Your task to perform on an android device: stop showing notifications on the lock screen Image 0: 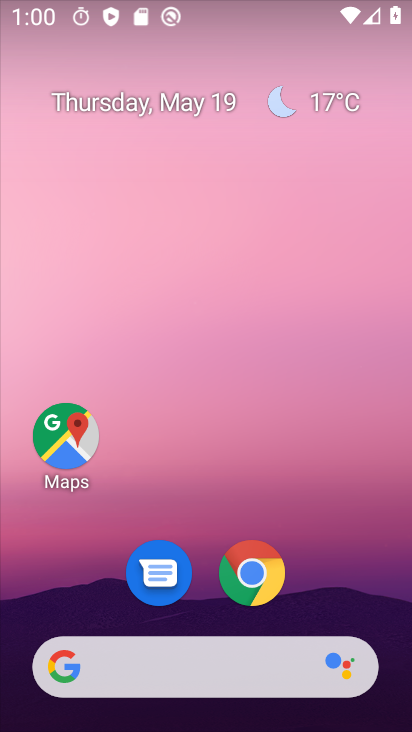
Step 0: drag from (183, 614) to (220, 127)
Your task to perform on an android device: stop showing notifications on the lock screen Image 1: 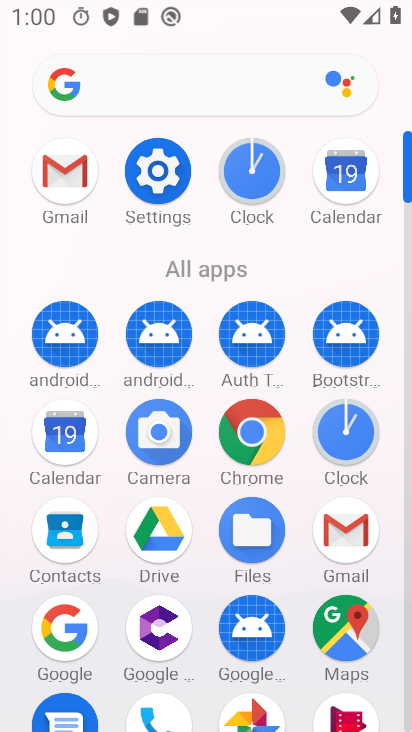
Step 1: click (158, 173)
Your task to perform on an android device: stop showing notifications on the lock screen Image 2: 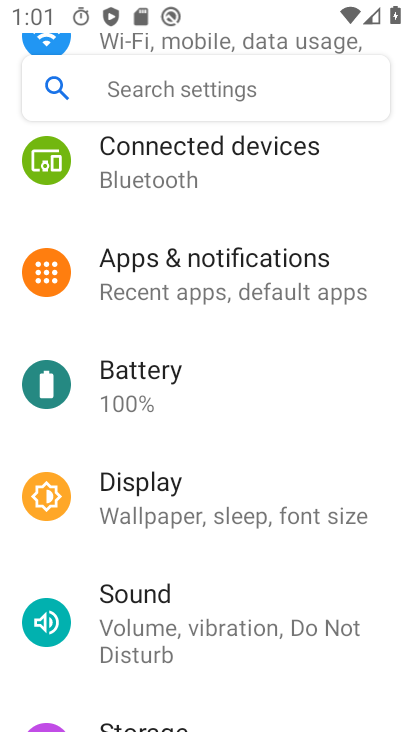
Step 2: click (206, 290)
Your task to perform on an android device: stop showing notifications on the lock screen Image 3: 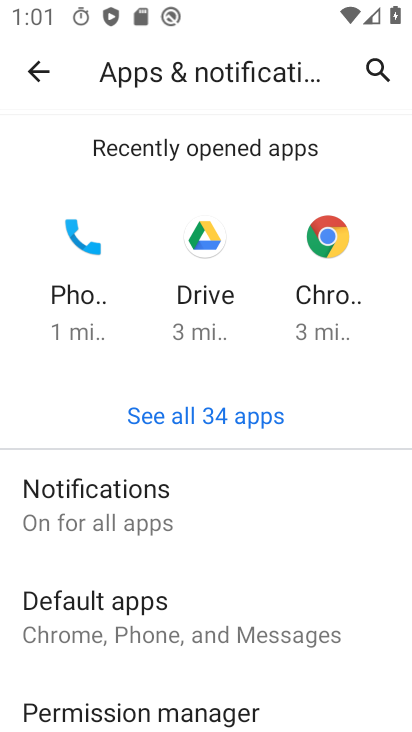
Step 3: click (116, 512)
Your task to perform on an android device: stop showing notifications on the lock screen Image 4: 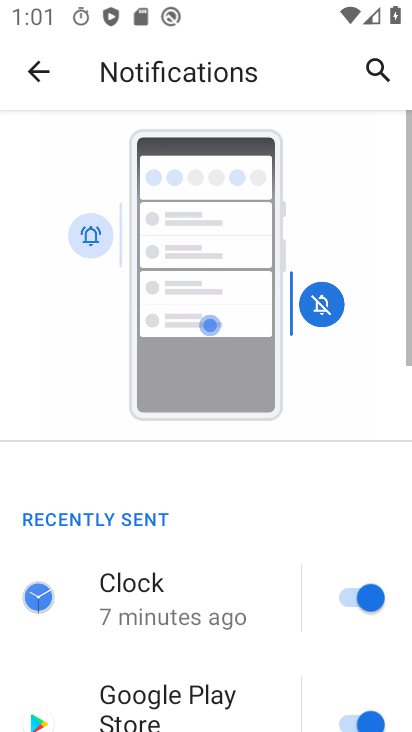
Step 4: drag from (159, 663) to (264, 153)
Your task to perform on an android device: stop showing notifications on the lock screen Image 5: 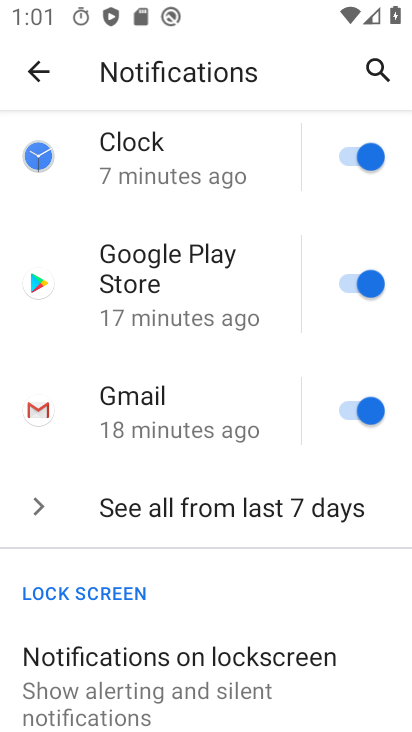
Step 5: click (208, 656)
Your task to perform on an android device: stop showing notifications on the lock screen Image 6: 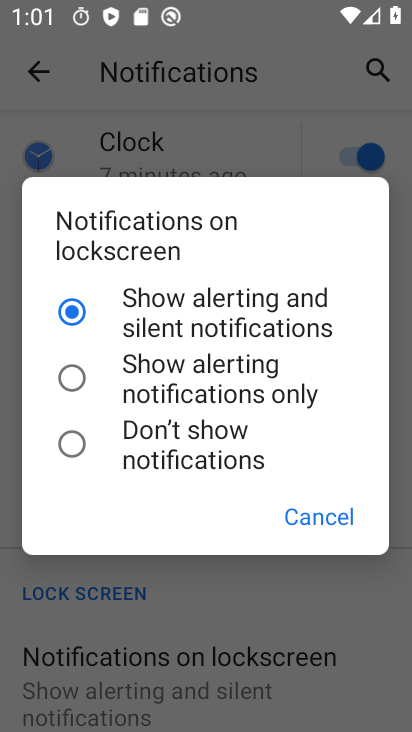
Step 6: click (64, 441)
Your task to perform on an android device: stop showing notifications on the lock screen Image 7: 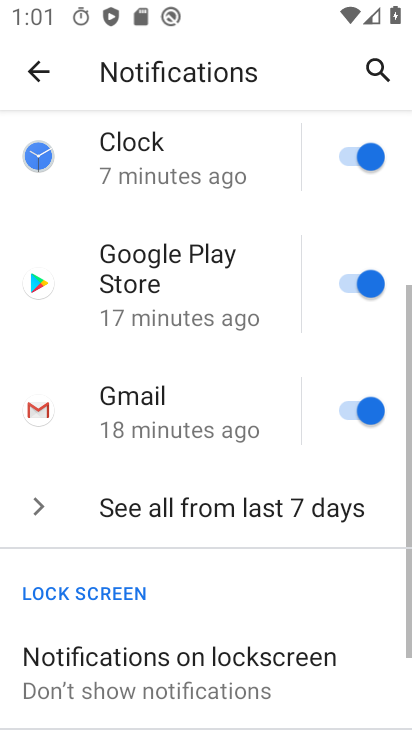
Step 7: task complete